Your task to perform on an android device: turn off location Image 0: 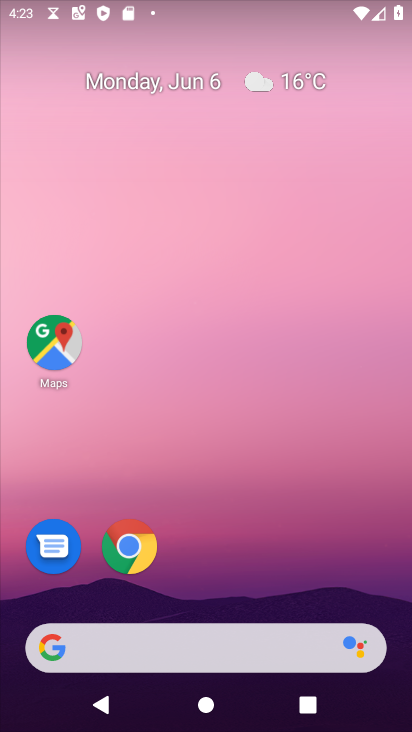
Step 0: drag from (312, 440) to (356, 0)
Your task to perform on an android device: turn off location Image 1: 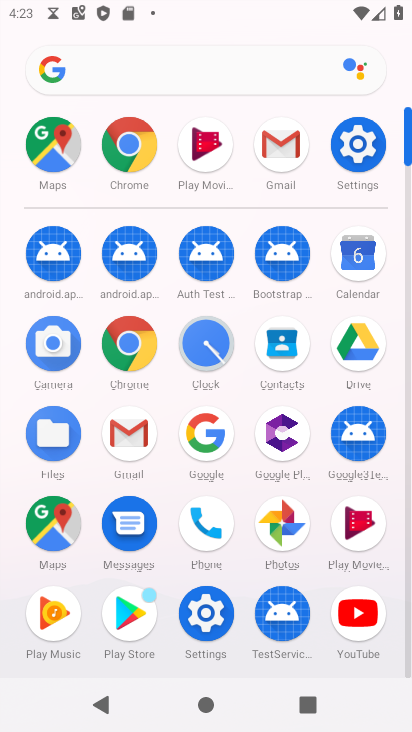
Step 1: click (344, 120)
Your task to perform on an android device: turn off location Image 2: 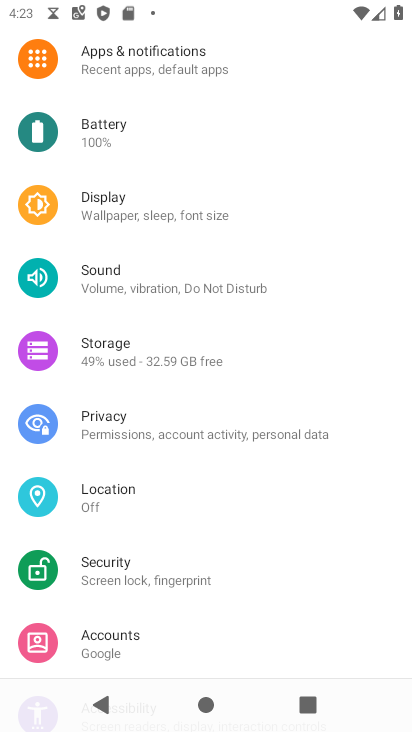
Step 2: click (170, 516)
Your task to perform on an android device: turn off location Image 3: 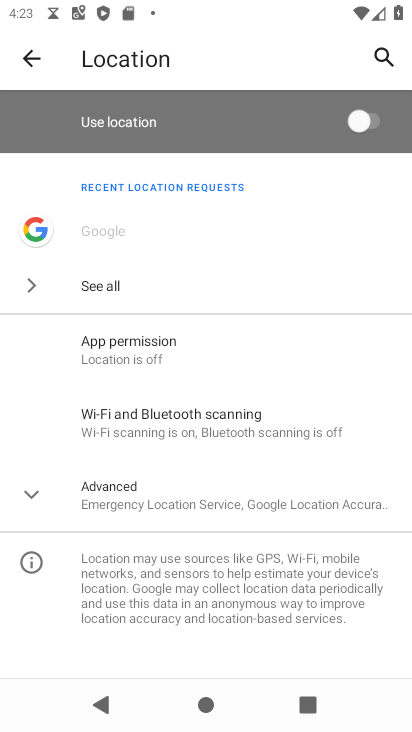
Step 3: task complete